Your task to perform on an android device: Open network settings Image 0: 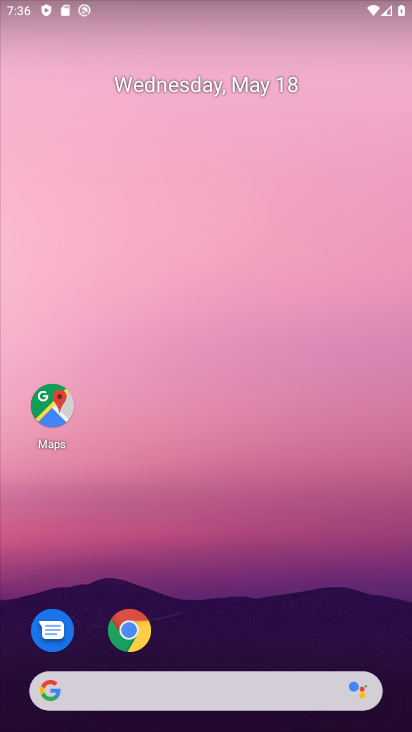
Step 0: drag from (247, 598) to (139, 101)
Your task to perform on an android device: Open network settings Image 1: 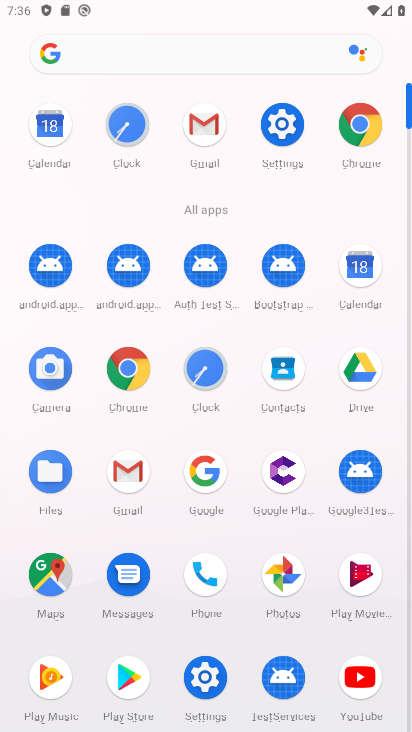
Step 1: click (282, 117)
Your task to perform on an android device: Open network settings Image 2: 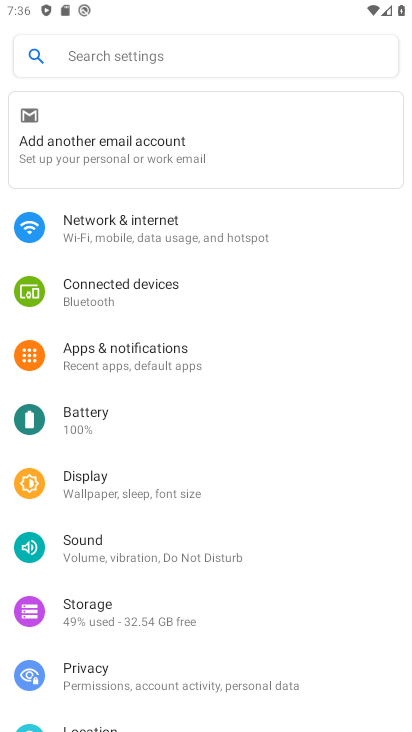
Step 2: task complete